Your task to perform on an android device: set the stopwatch Image 0: 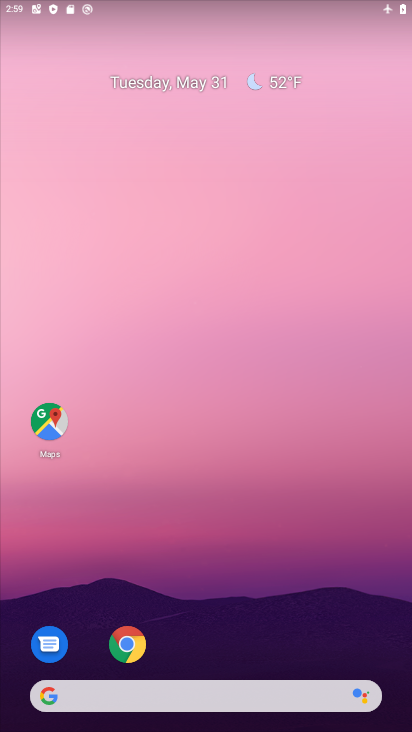
Step 0: drag from (153, 728) to (139, 39)
Your task to perform on an android device: set the stopwatch Image 1: 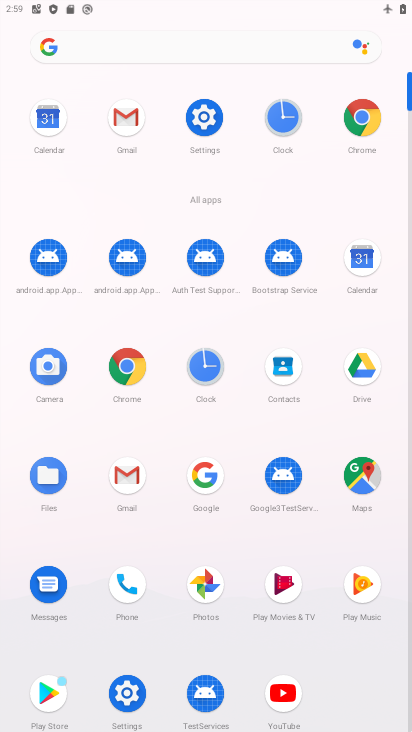
Step 1: click (295, 125)
Your task to perform on an android device: set the stopwatch Image 2: 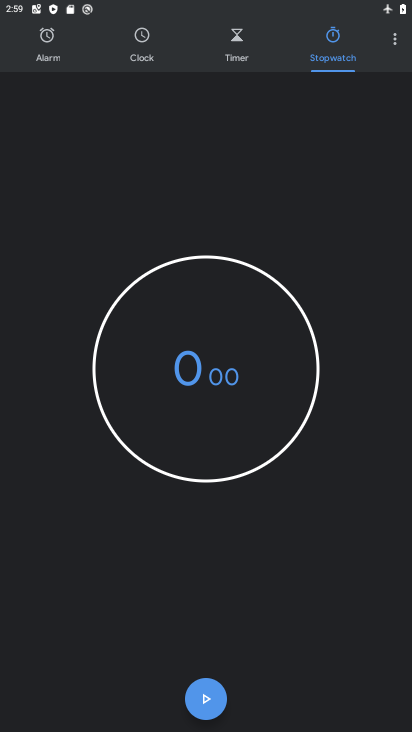
Step 2: click (204, 701)
Your task to perform on an android device: set the stopwatch Image 3: 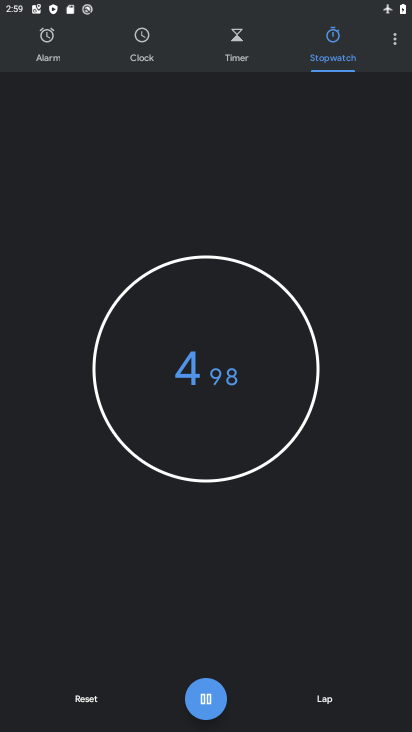
Step 3: click (199, 707)
Your task to perform on an android device: set the stopwatch Image 4: 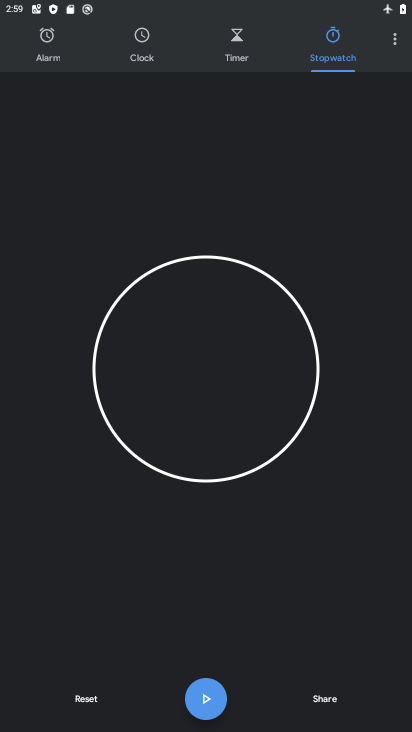
Step 4: click (96, 704)
Your task to perform on an android device: set the stopwatch Image 5: 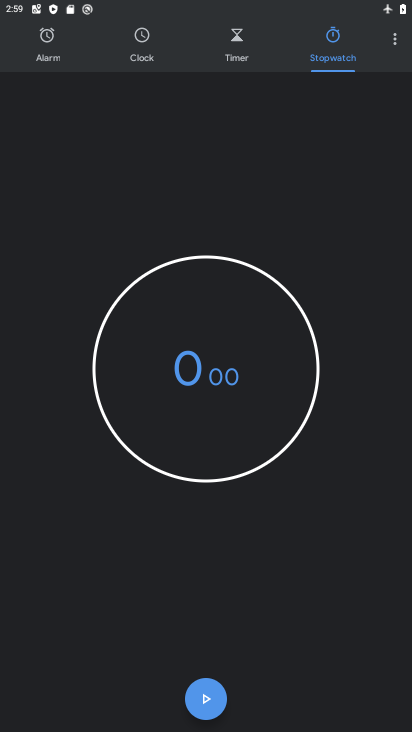
Step 5: task complete